Your task to perform on an android device: open chrome privacy settings Image 0: 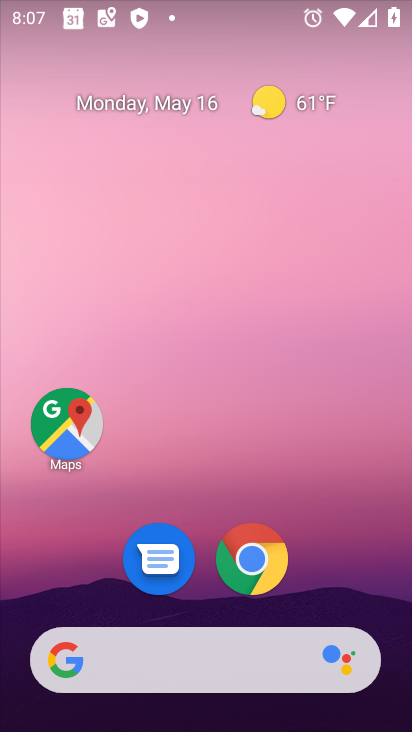
Step 0: drag from (299, 488) to (317, 89)
Your task to perform on an android device: open chrome privacy settings Image 1: 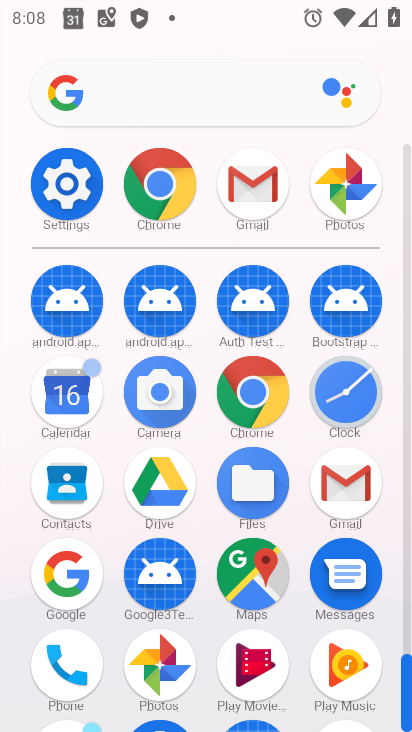
Step 1: click (237, 429)
Your task to perform on an android device: open chrome privacy settings Image 2: 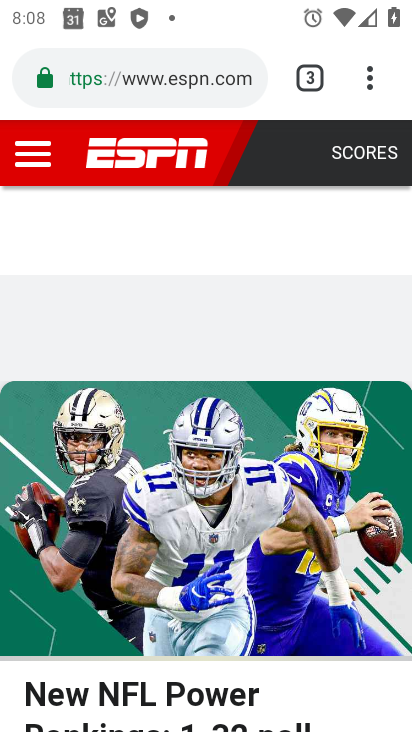
Step 2: drag from (359, 98) to (180, 606)
Your task to perform on an android device: open chrome privacy settings Image 3: 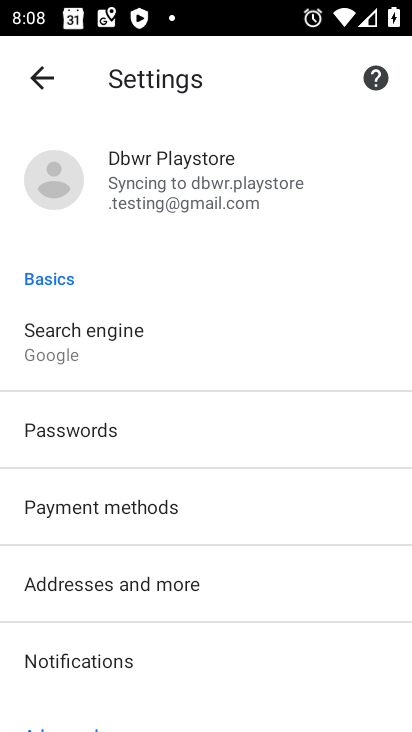
Step 3: drag from (144, 644) to (185, 343)
Your task to perform on an android device: open chrome privacy settings Image 4: 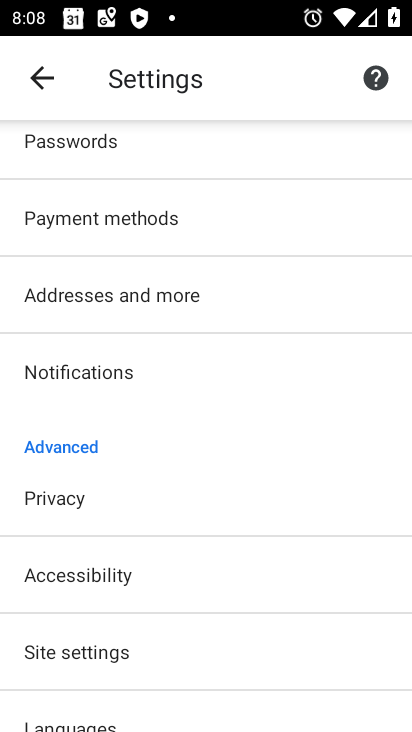
Step 4: click (115, 500)
Your task to perform on an android device: open chrome privacy settings Image 5: 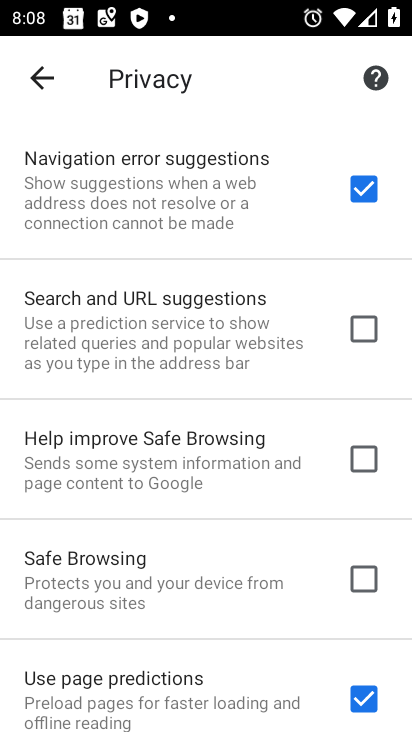
Step 5: click (120, 487)
Your task to perform on an android device: open chrome privacy settings Image 6: 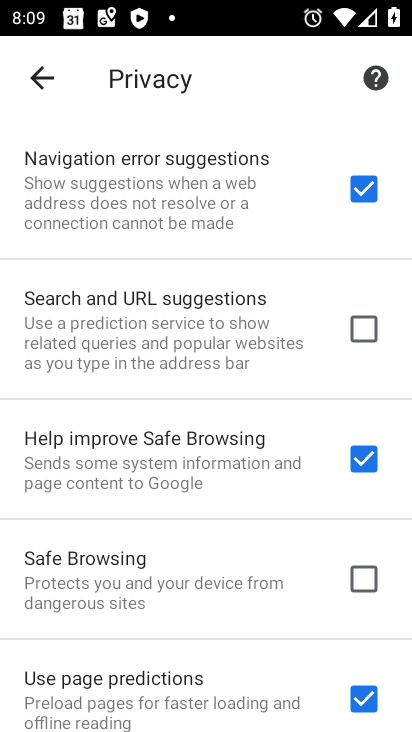
Step 6: task complete